Your task to perform on an android device: Clear the shopping cart on newegg.com. Add "razer kraken" to the cart on newegg.com, then select checkout. Image 0: 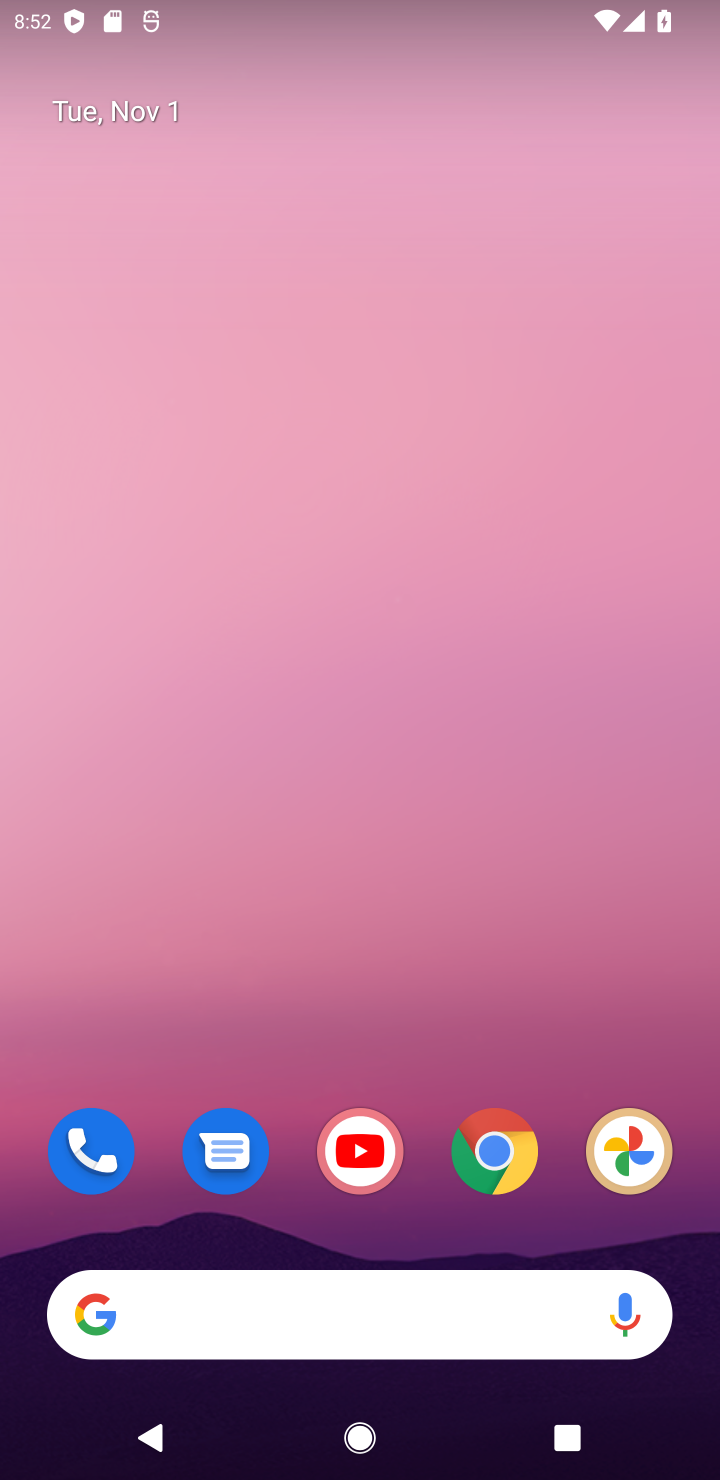
Step 0: click (473, 1138)
Your task to perform on an android device: Clear the shopping cart on newegg.com. Add "razer kraken" to the cart on newegg.com, then select checkout. Image 1: 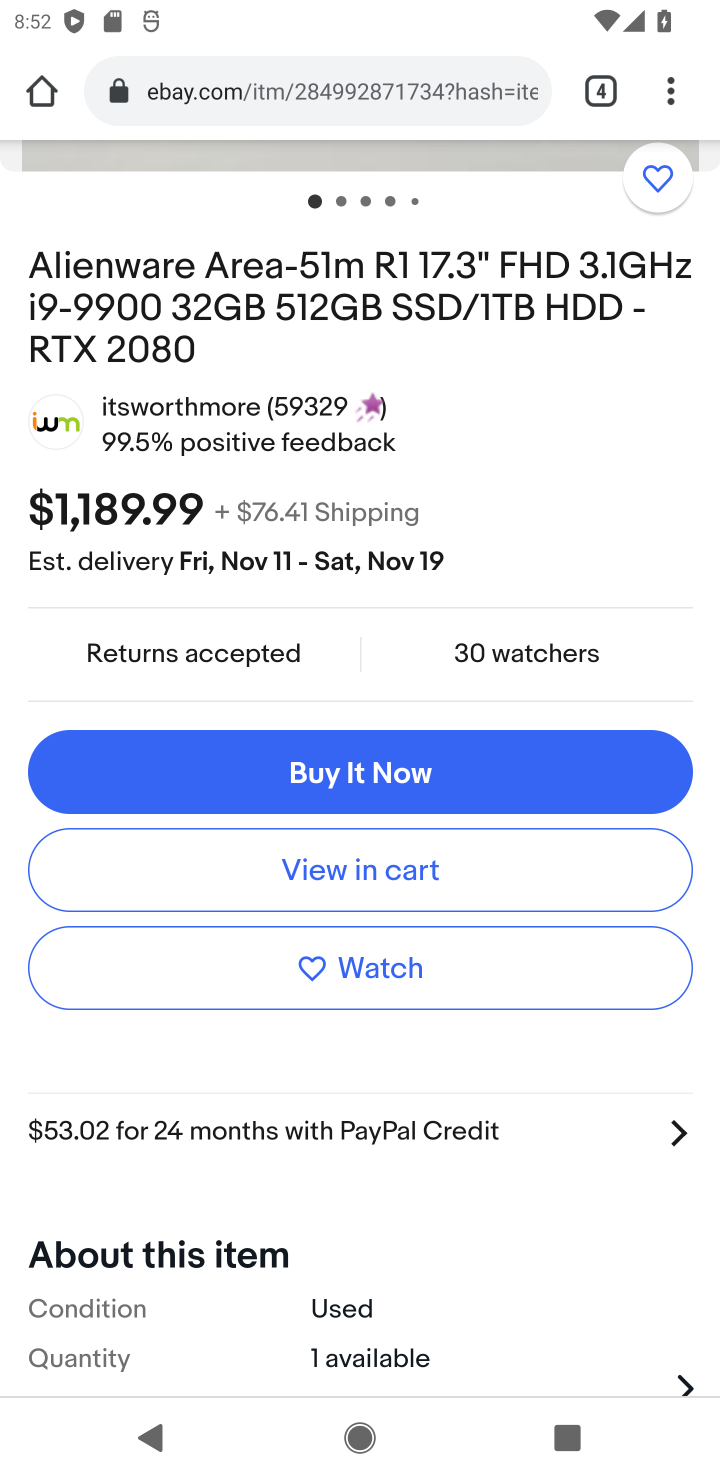
Step 1: click (596, 82)
Your task to perform on an android device: Clear the shopping cart on newegg.com. Add "razer kraken" to the cart on newegg.com, then select checkout. Image 2: 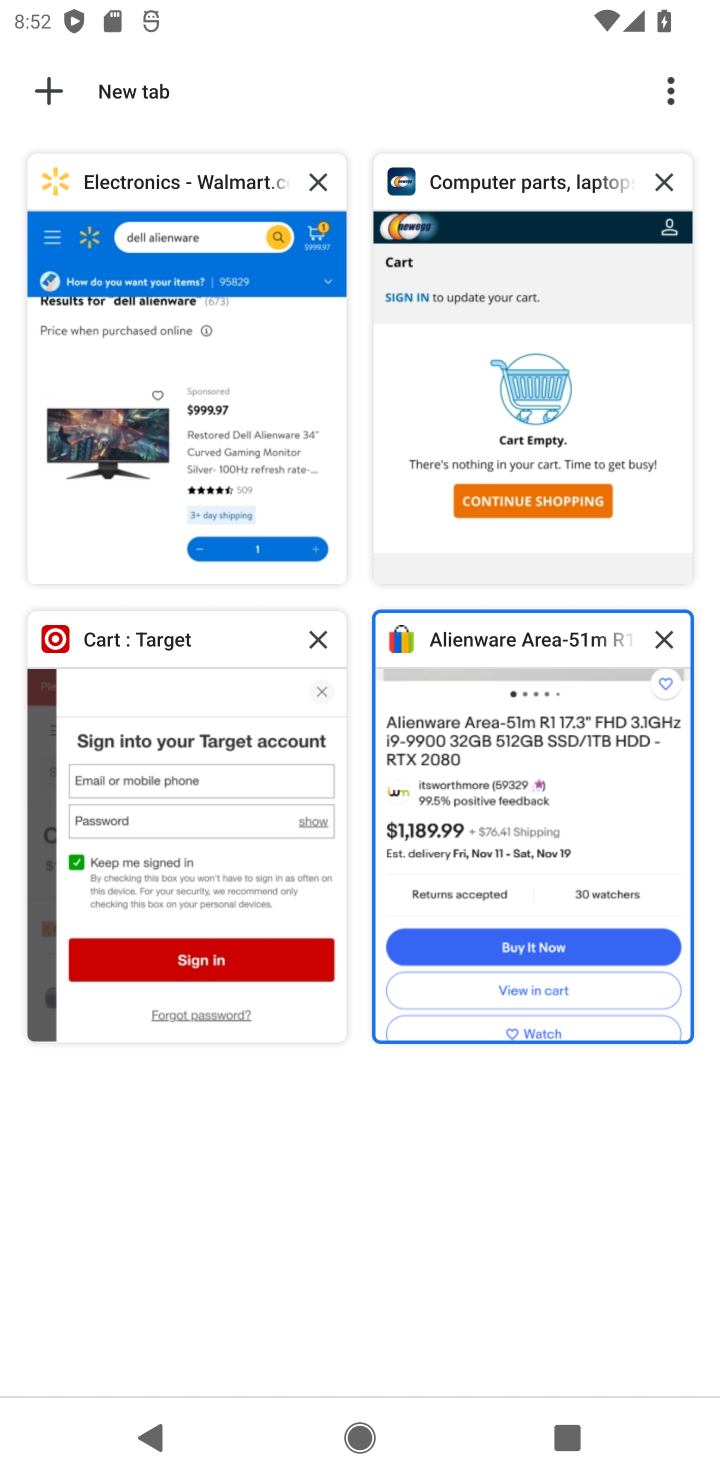
Step 2: click (480, 390)
Your task to perform on an android device: Clear the shopping cart on newegg.com. Add "razer kraken" to the cart on newegg.com, then select checkout. Image 3: 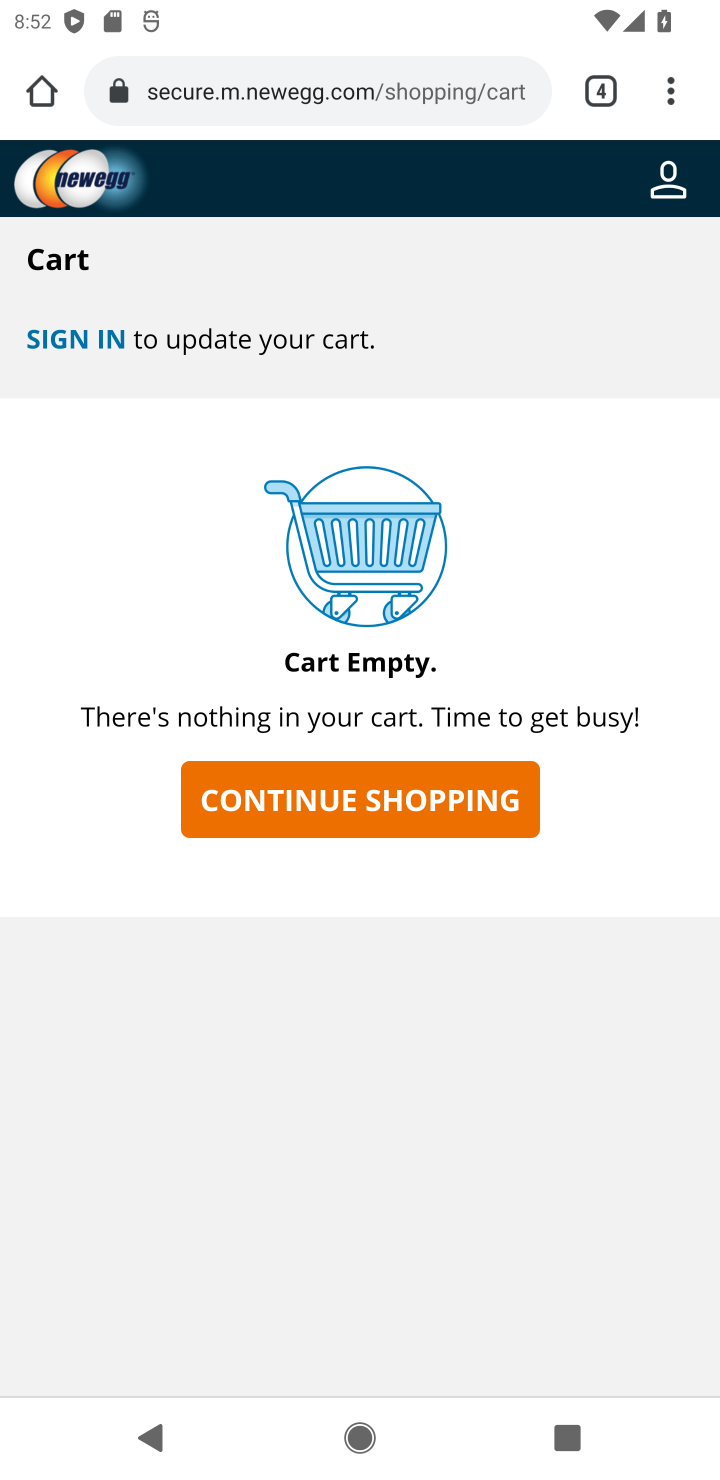
Step 3: click (360, 809)
Your task to perform on an android device: Clear the shopping cart on newegg.com. Add "razer kraken" to the cart on newegg.com, then select checkout. Image 4: 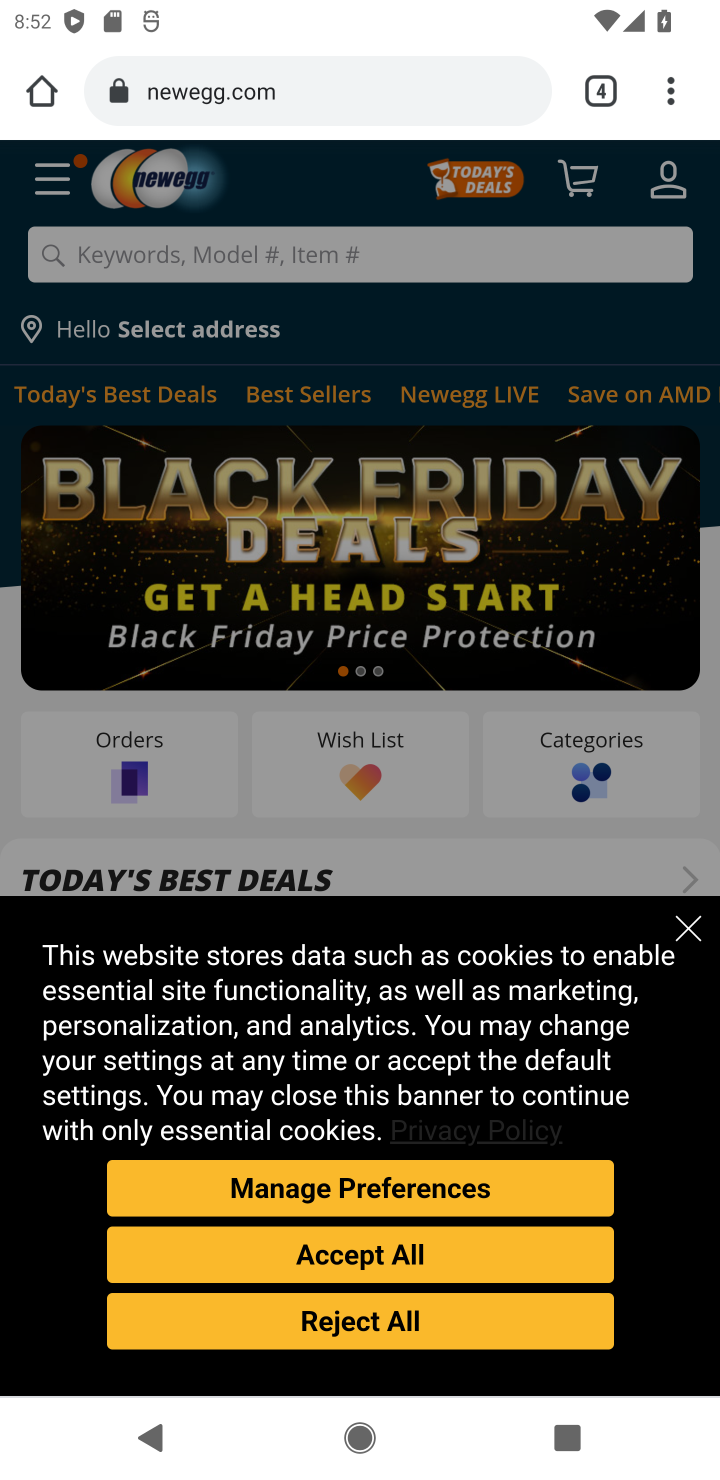
Step 4: click (255, 246)
Your task to perform on an android device: Clear the shopping cart on newegg.com. Add "razer kraken" to the cart on newegg.com, then select checkout. Image 5: 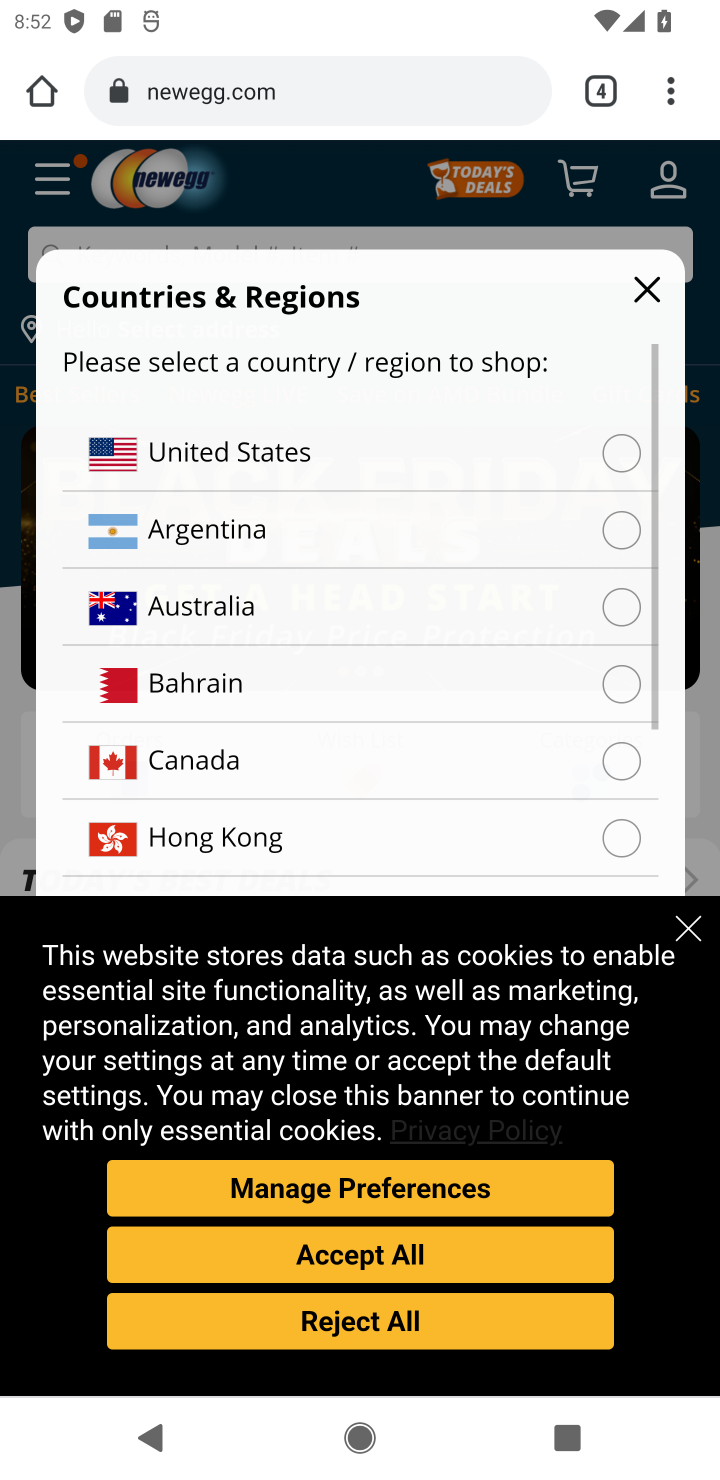
Step 5: click (685, 928)
Your task to perform on an android device: Clear the shopping cart on newegg.com. Add "razer kraken" to the cart on newegg.com, then select checkout. Image 6: 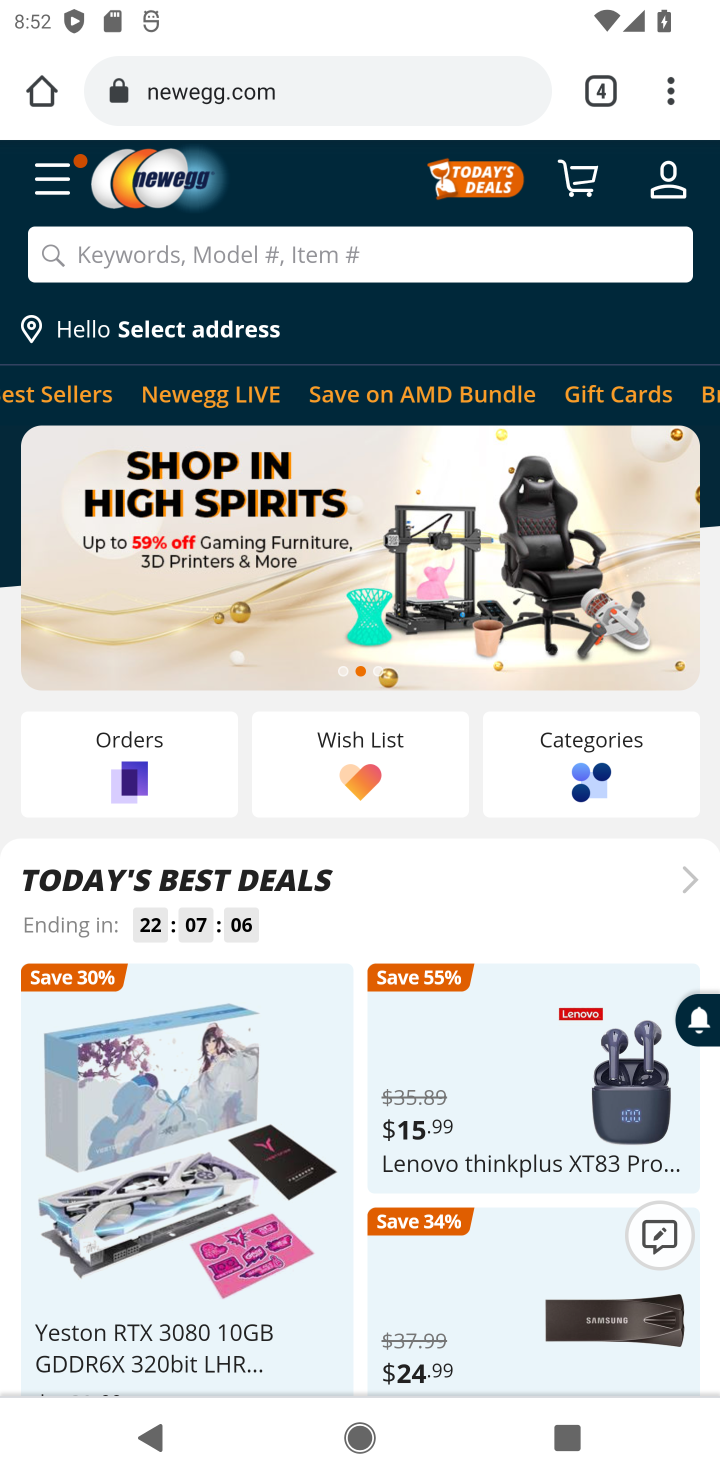
Step 6: click (240, 248)
Your task to perform on an android device: Clear the shopping cart on newegg.com. Add "razer kraken" to the cart on newegg.com, then select checkout. Image 7: 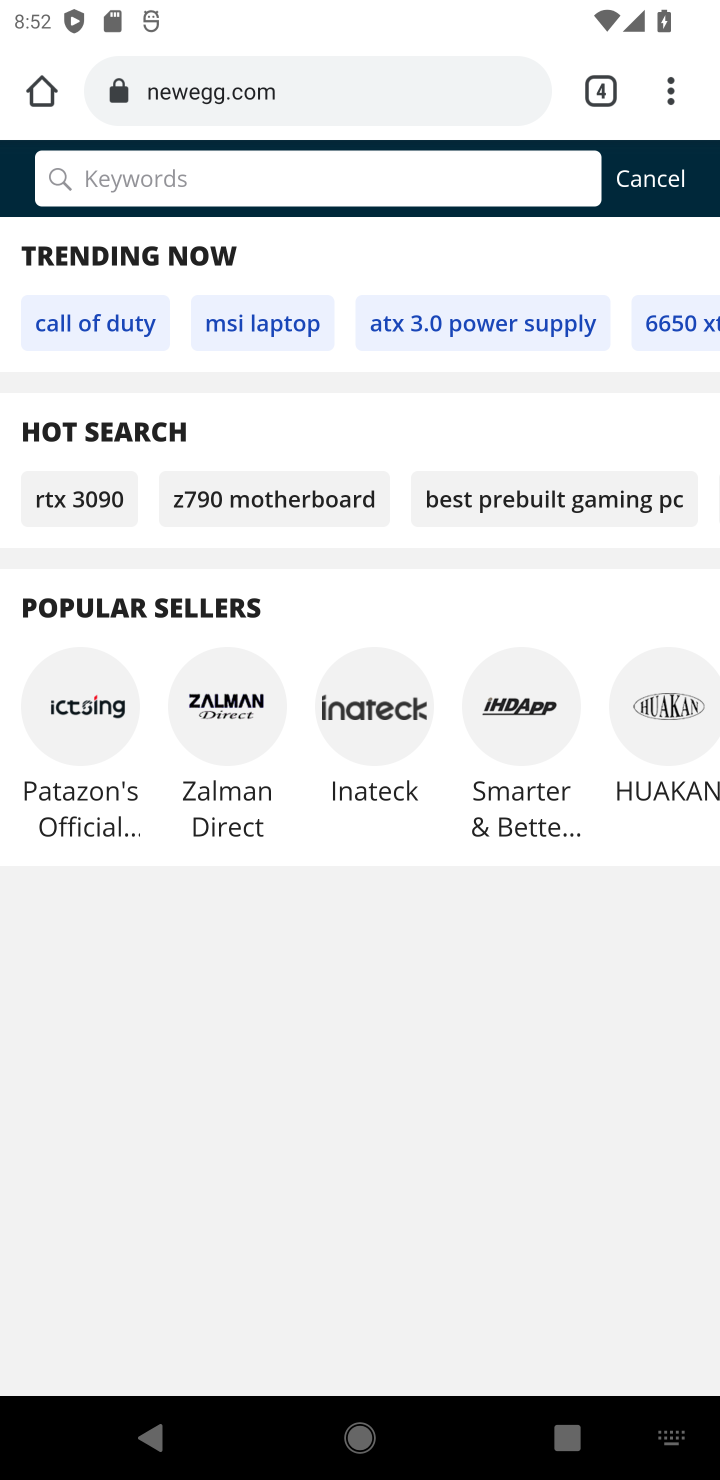
Step 7: type "razer kraken"
Your task to perform on an android device: Clear the shopping cart on newegg.com. Add "razer kraken" to the cart on newegg.com, then select checkout. Image 8: 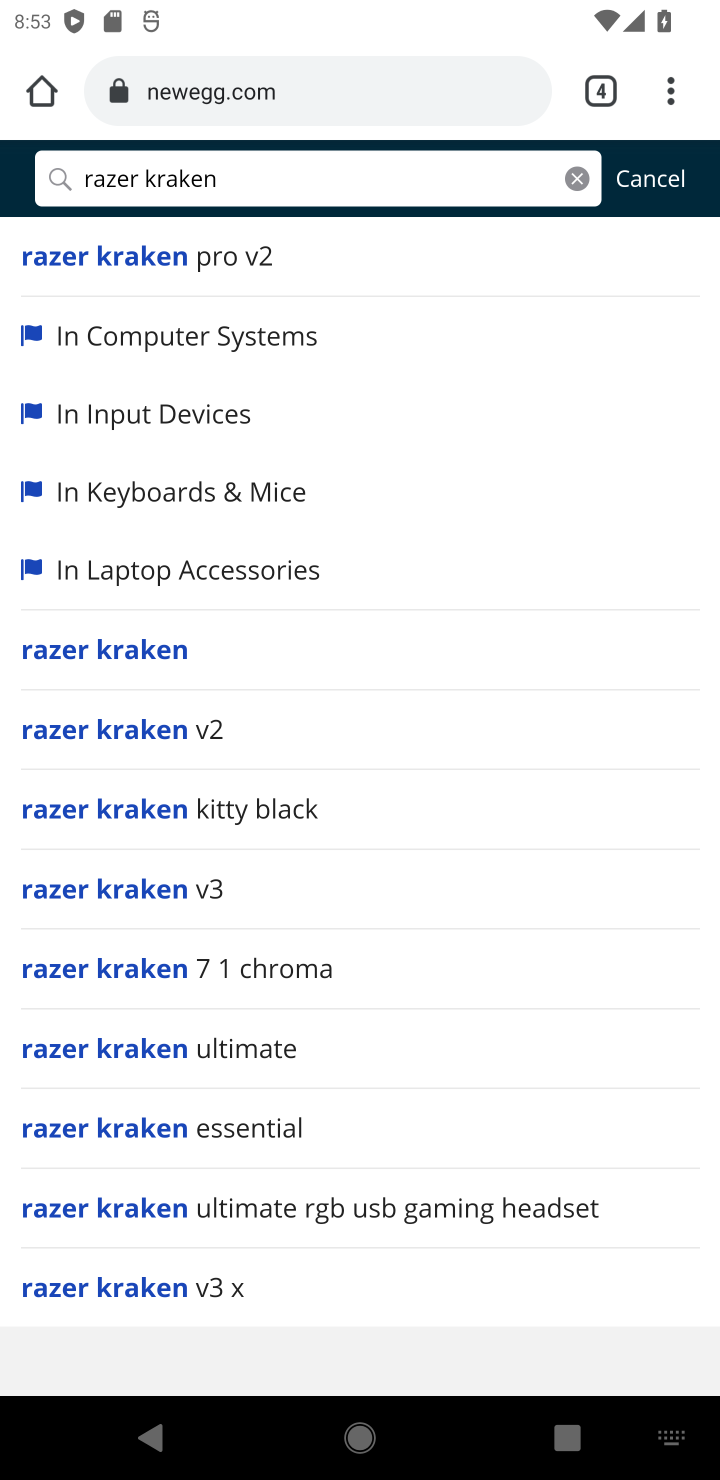
Step 8: type "p;o"
Your task to perform on an android device: Clear the shopping cart on newegg.com. Add "razer kraken" to the cart on newegg.com, then select checkout. Image 9: 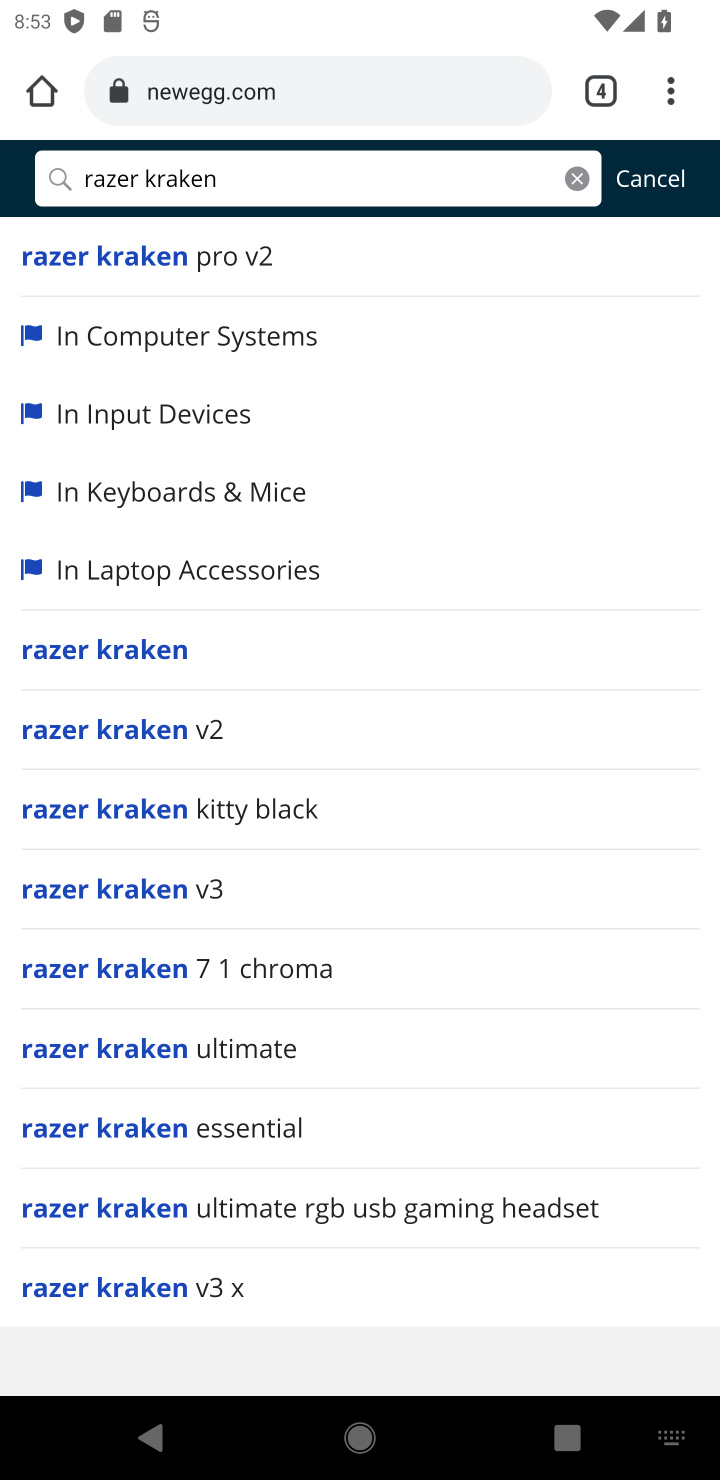
Step 9: click (82, 251)
Your task to perform on an android device: Clear the shopping cart on newegg.com. Add "razer kraken" to the cart on newegg.com, then select checkout. Image 10: 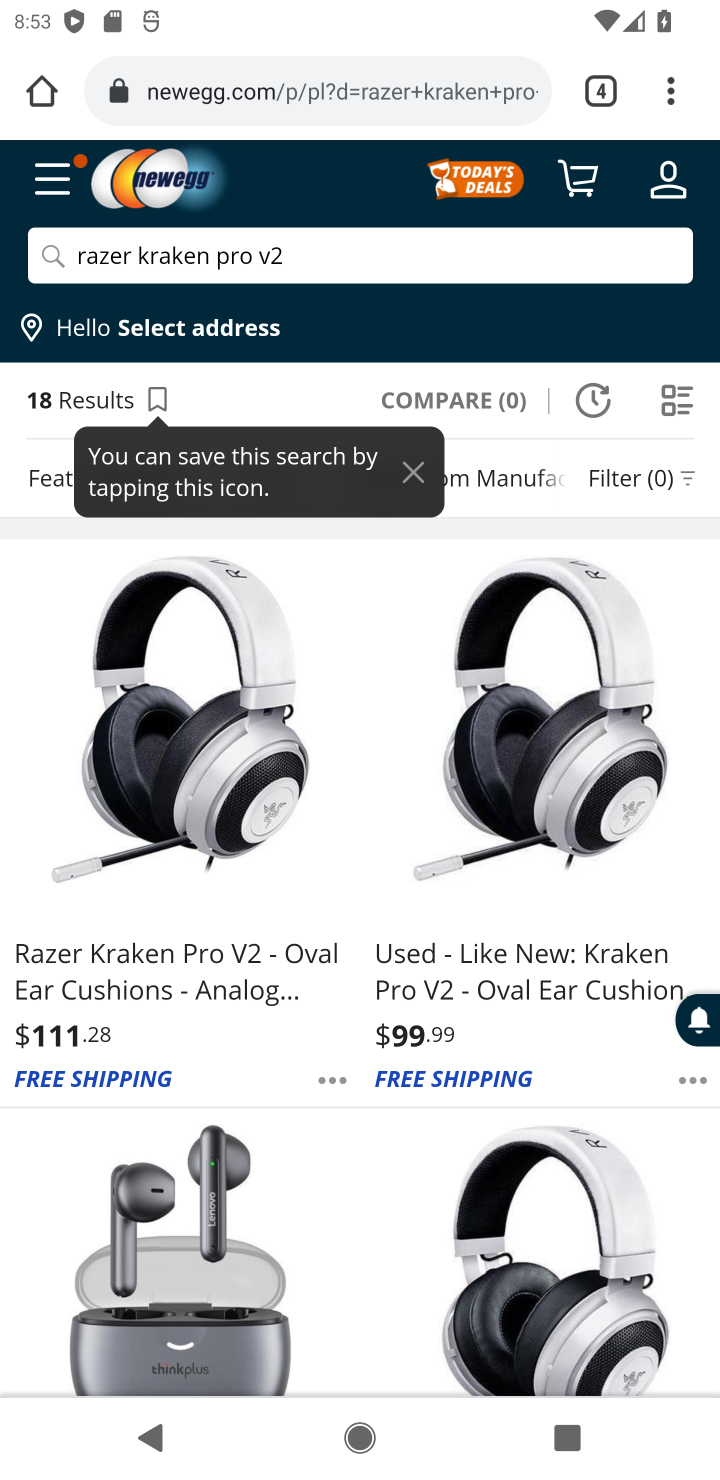
Step 10: click (126, 998)
Your task to perform on an android device: Clear the shopping cart on newegg.com. Add "razer kraken" to the cart on newegg.com, then select checkout. Image 11: 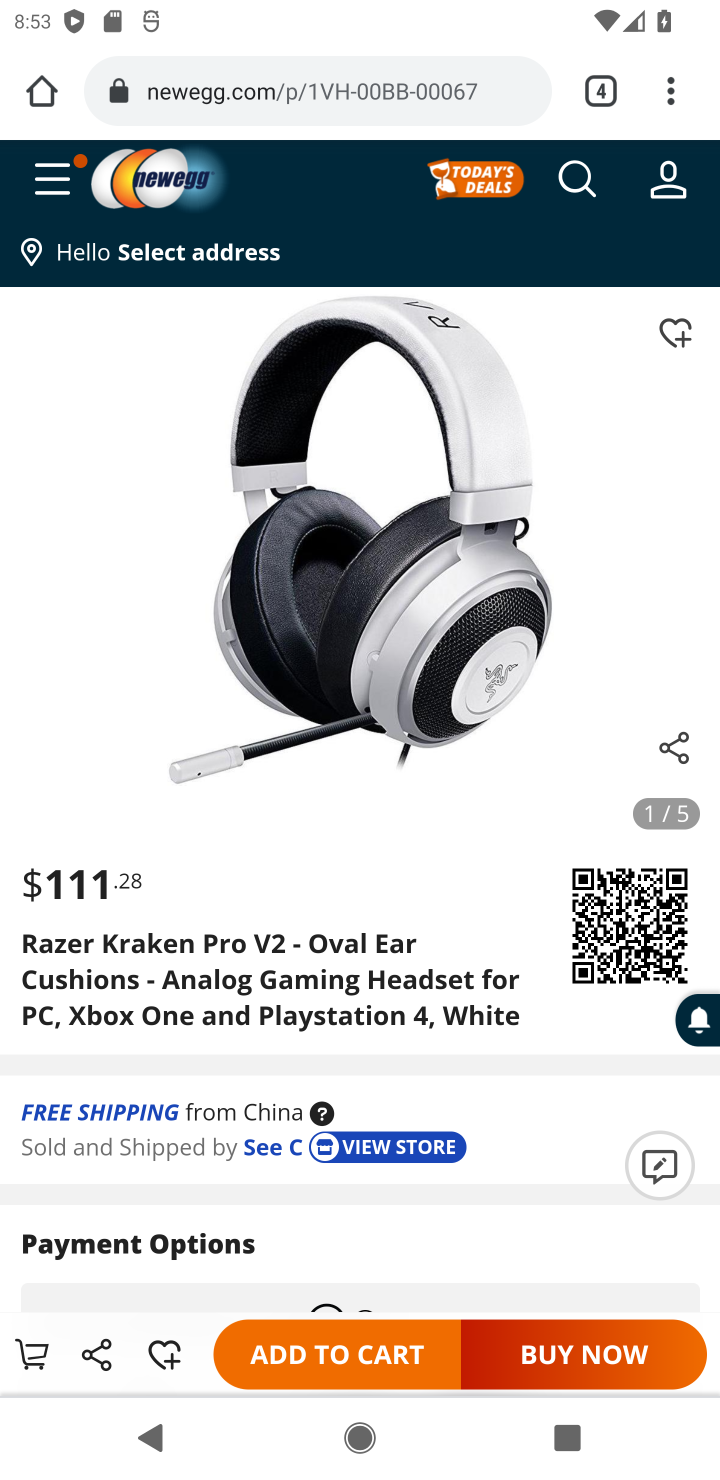
Step 11: click (349, 1332)
Your task to perform on an android device: Clear the shopping cart on newegg.com. Add "razer kraken" to the cart on newegg.com, then select checkout. Image 12: 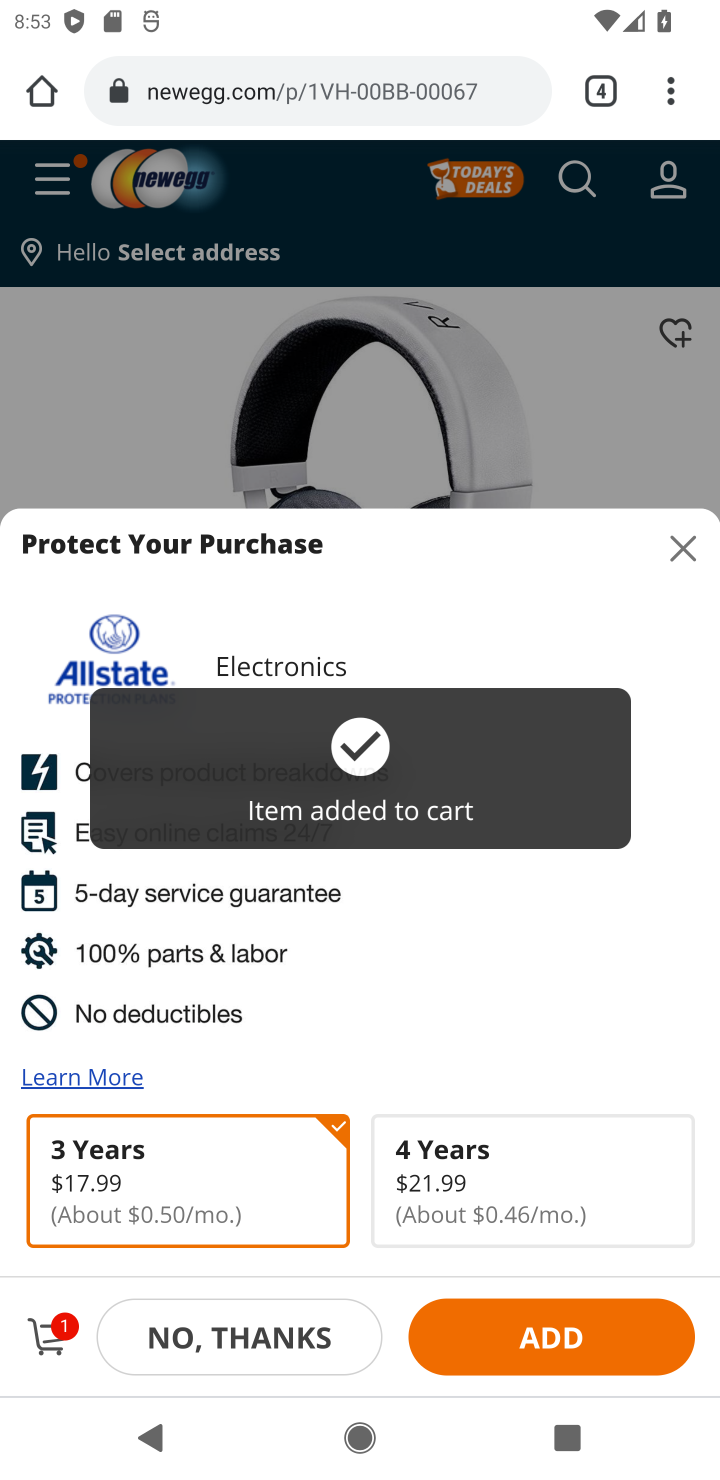
Step 12: task complete